Your task to perform on an android device: What's the weather today? Image 0: 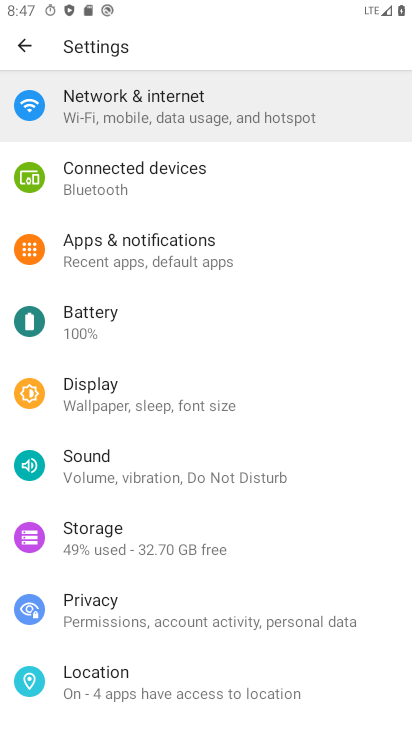
Step 0: press home button
Your task to perform on an android device: What's the weather today? Image 1: 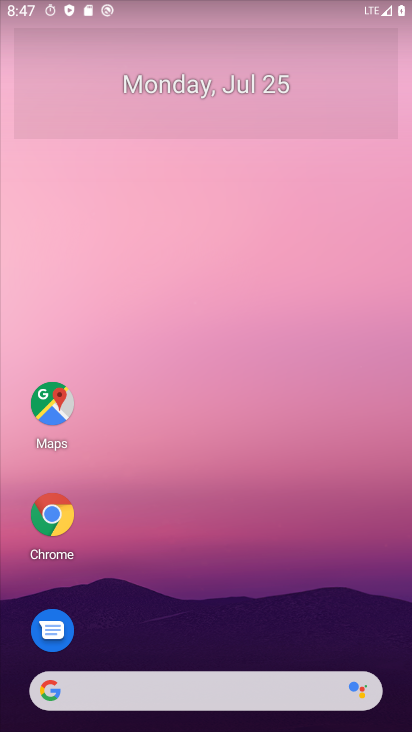
Step 1: click (87, 688)
Your task to perform on an android device: What's the weather today? Image 2: 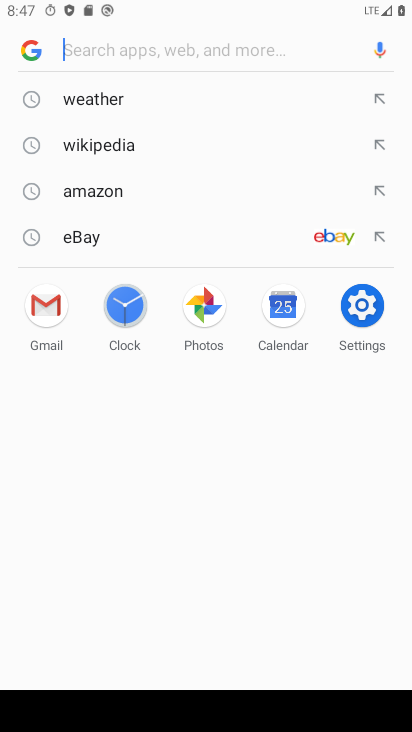
Step 2: type "What's the weather today?"
Your task to perform on an android device: What's the weather today? Image 3: 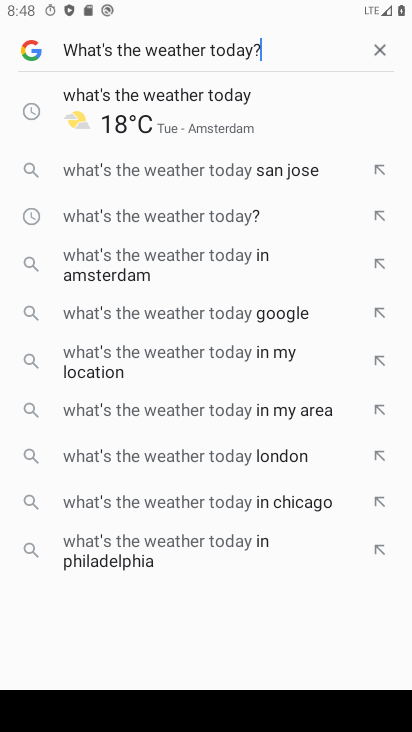
Step 3: type ""
Your task to perform on an android device: What's the weather today? Image 4: 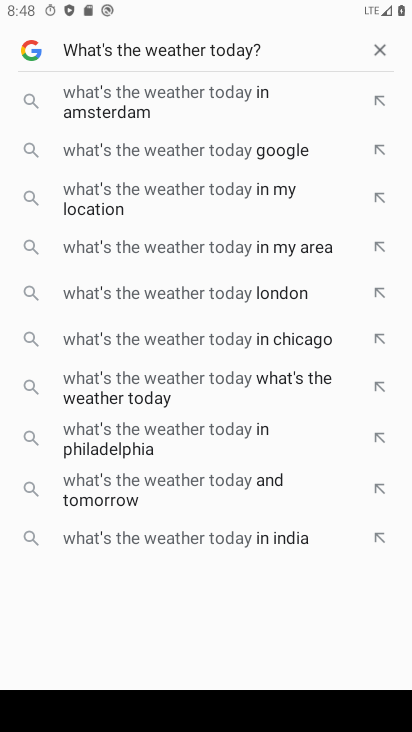
Step 4: type ""
Your task to perform on an android device: What's the weather today? Image 5: 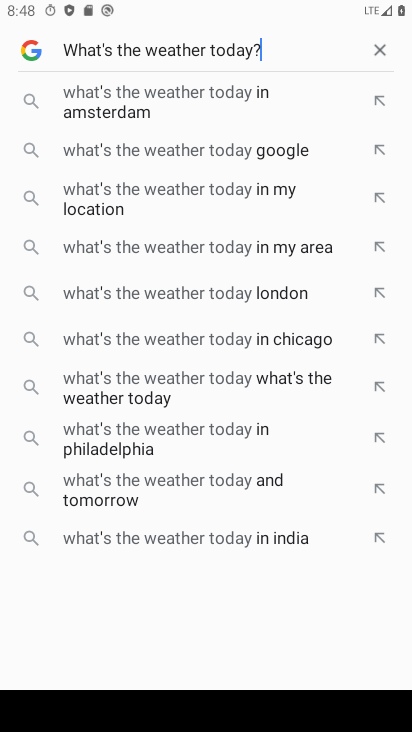
Step 5: type ""
Your task to perform on an android device: What's the weather today? Image 6: 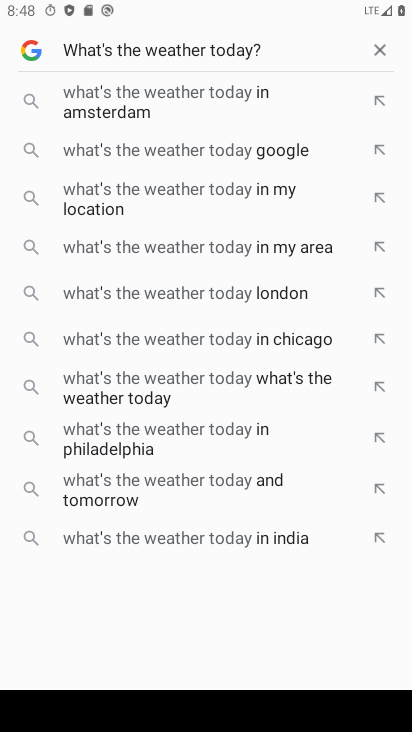
Step 6: task complete